Your task to perform on an android device: Open sound settings Image 0: 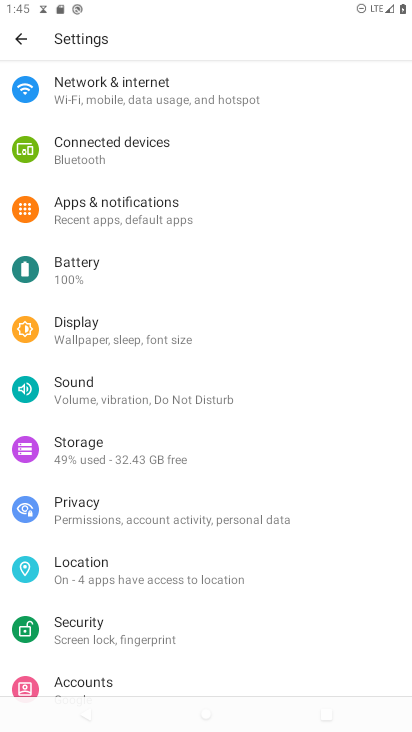
Step 0: press home button
Your task to perform on an android device: Open sound settings Image 1: 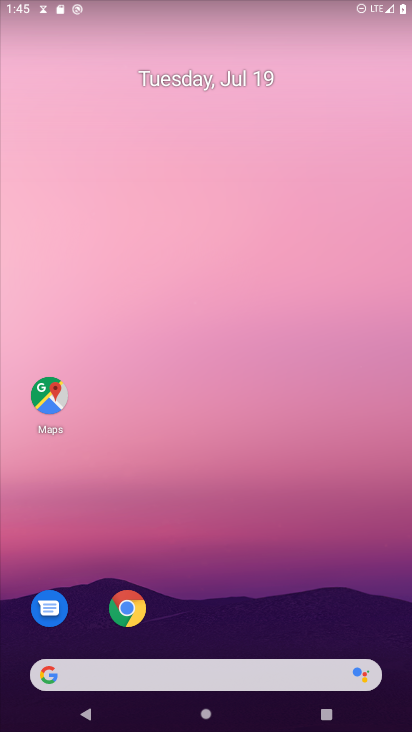
Step 1: drag from (165, 670) to (386, 7)
Your task to perform on an android device: Open sound settings Image 2: 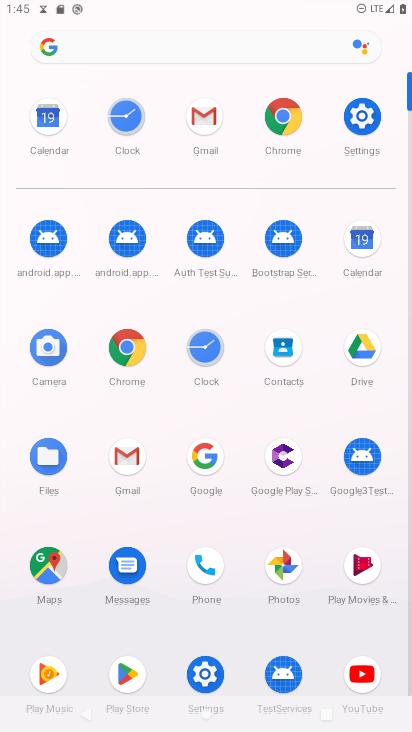
Step 2: click (365, 123)
Your task to perform on an android device: Open sound settings Image 3: 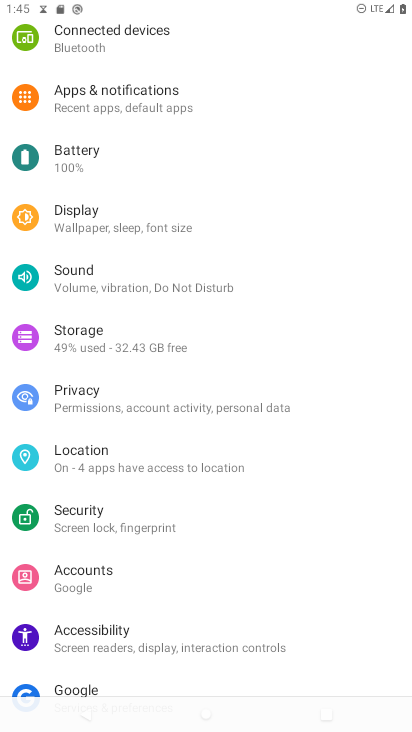
Step 3: click (94, 276)
Your task to perform on an android device: Open sound settings Image 4: 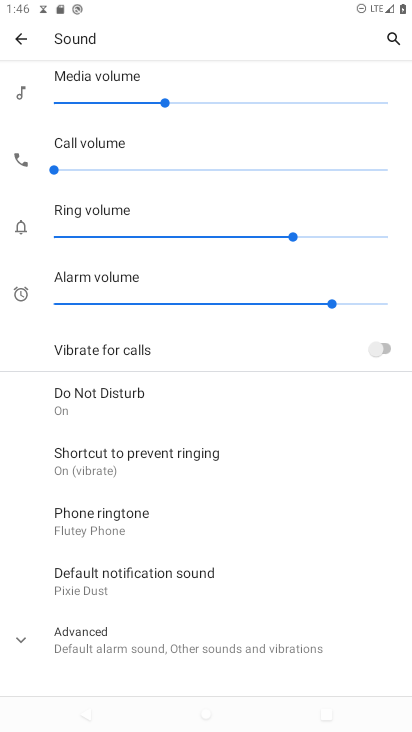
Step 4: task complete